Your task to perform on an android device: turn vacation reply on in the gmail app Image 0: 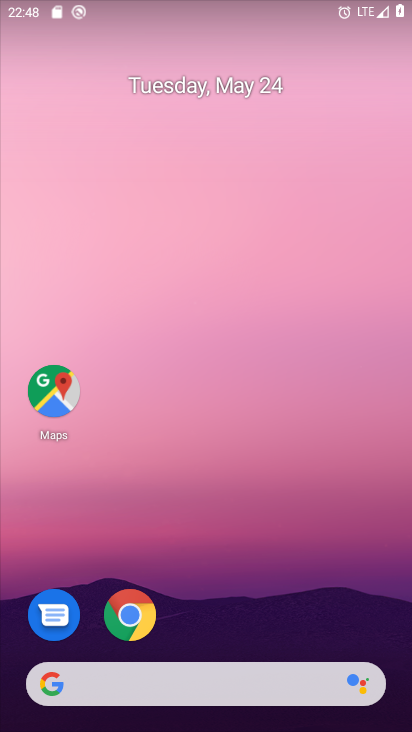
Step 0: drag from (158, 549) to (306, 116)
Your task to perform on an android device: turn vacation reply on in the gmail app Image 1: 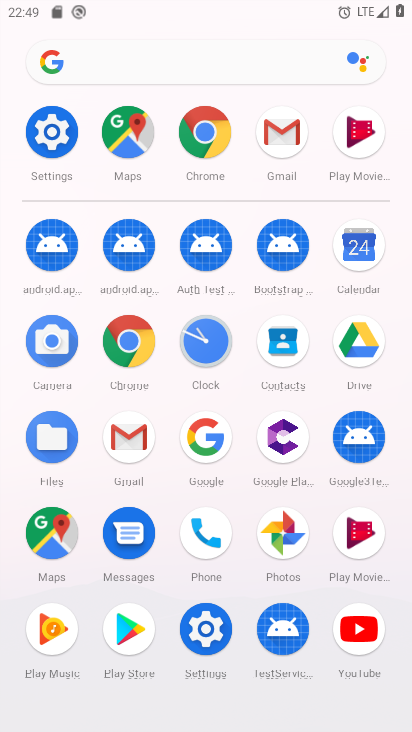
Step 1: click (117, 427)
Your task to perform on an android device: turn vacation reply on in the gmail app Image 2: 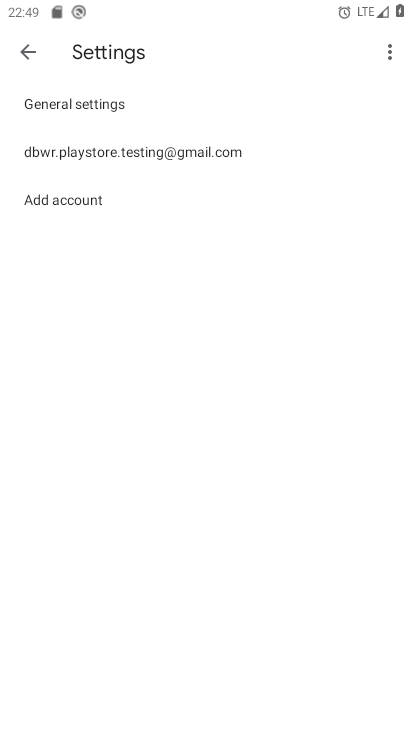
Step 2: click (89, 153)
Your task to perform on an android device: turn vacation reply on in the gmail app Image 3: 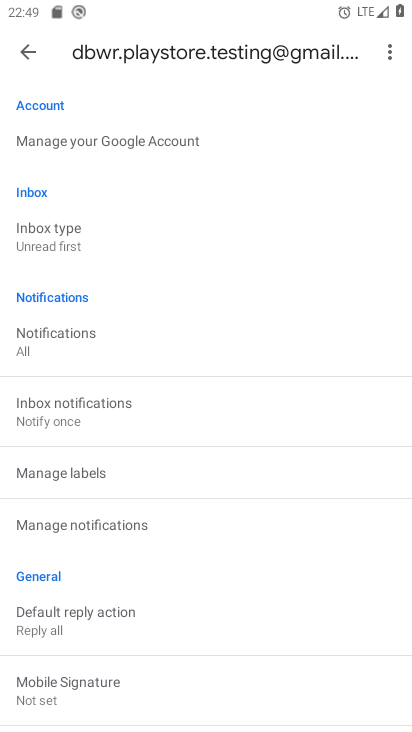
Step 3: task complete